Your task to perform on an android device: snooze an email in the gmail app Image 0: 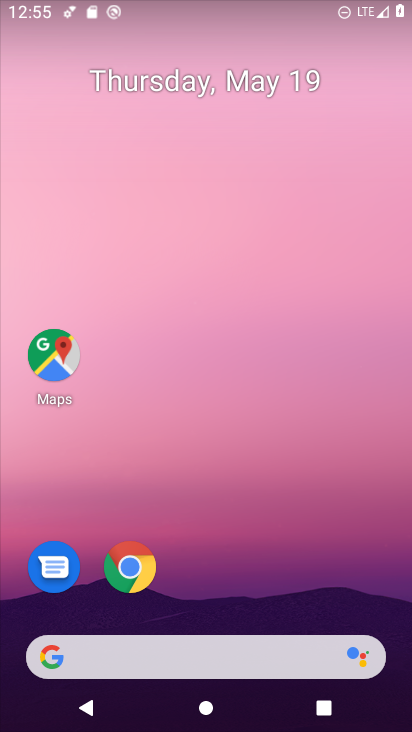
Step 0: drag from (209, 575) to (262, 76)
Your task to perform on an android device: snooze an email in the gmail app Image 1: 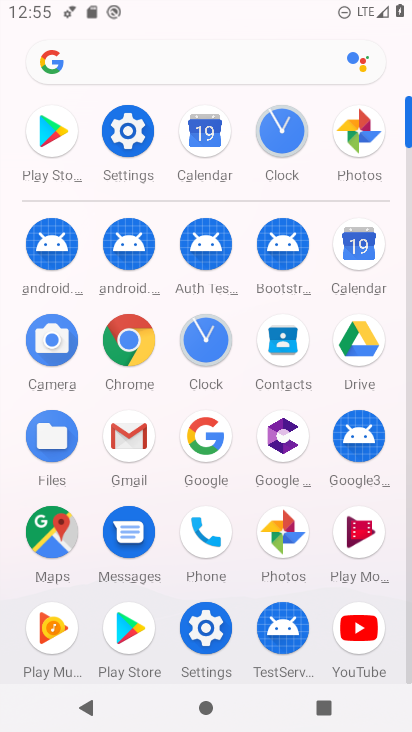
Step 1: click (129, 430)
Your task to perform on an android device: snooze an email in the gmail app Image 2: 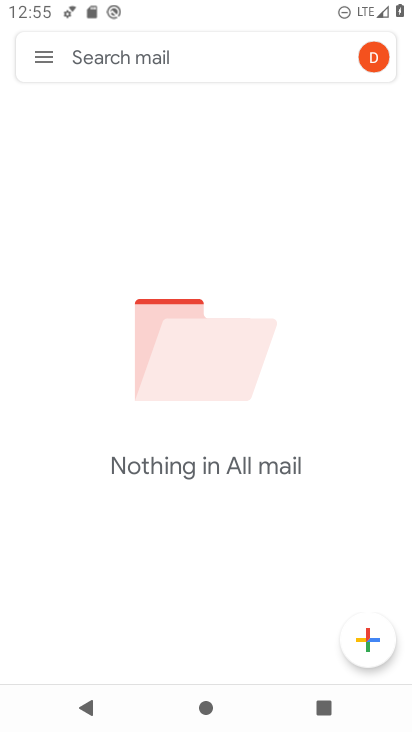
Step 2: task complete